Your task to perform on an android device: turn pop-ups off in chrome Image 0: 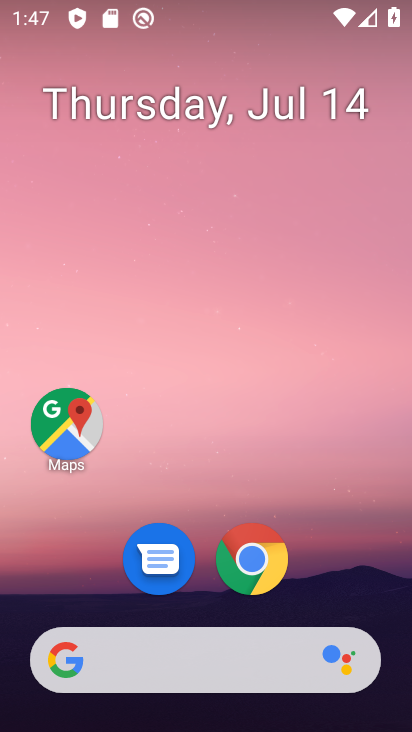
Step 0: drag from (292, 613) to (340, 238)
Your task to perform on an android device: turn pop-ups off in chrome Image 1: 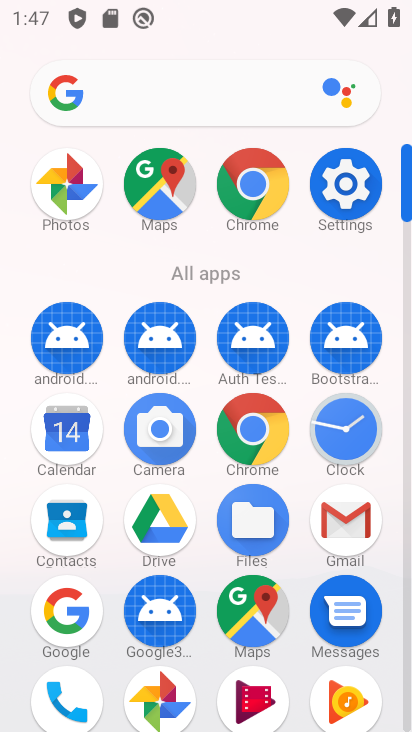
Step 1: click (263, 424)
Your task to perform on an android device: turn pop-ups off in chrome Image 2: 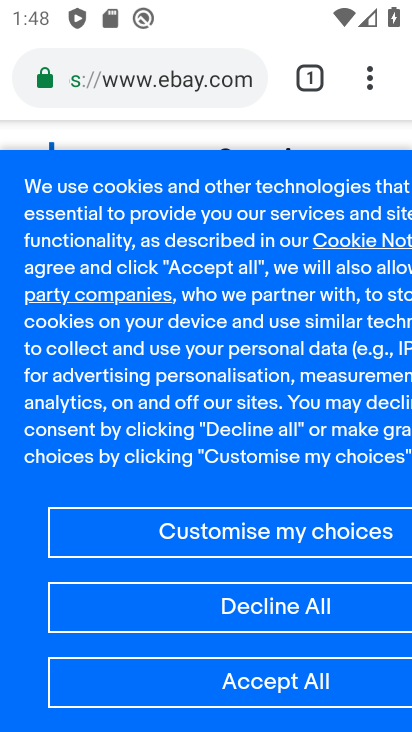
Step 2: click (374, 84)
Your task to perform on an android device: turn pop-ups off in chrome Image 3: 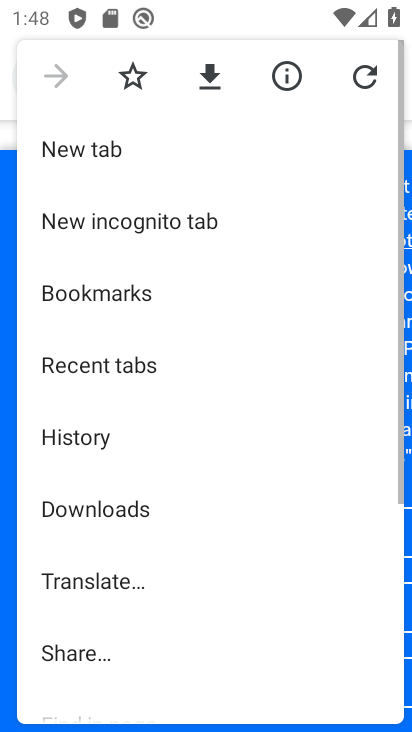
Step 3: drag from (189, 563) to (328, 28)
Your task to perform on an android device: turn pop-ups off in chrome Image 4: 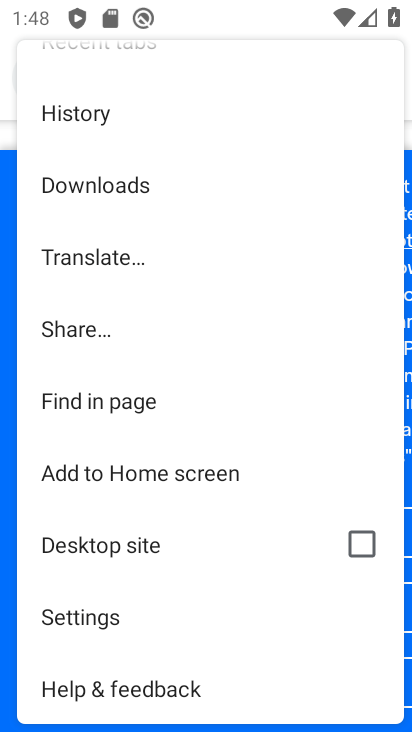
Step 4: click (92, 613)
Your task to perform on an android device: turn pop-ups off in chrome Image 5: 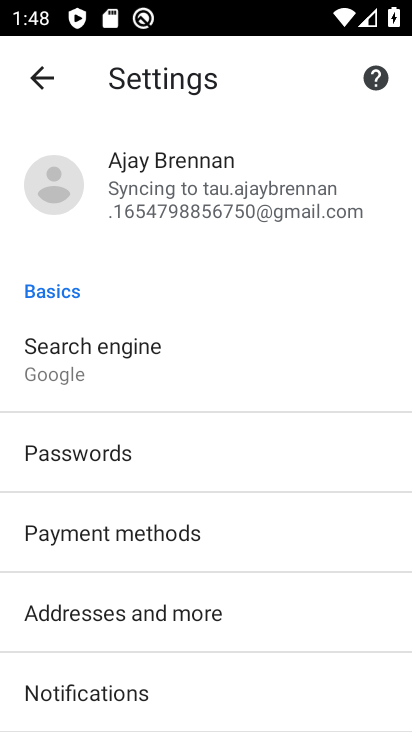
Step 5: drag from (173, 619) to (297, 225)
Your task to perform on an android device: turn pop-ups off in chrome Image 6: 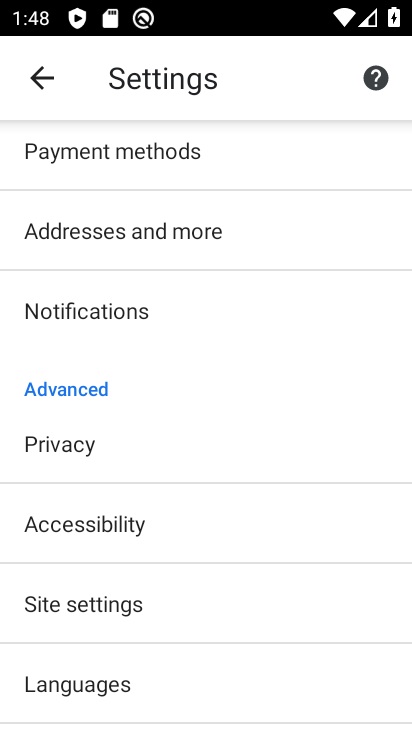
Step 6: click (131, 613)
Your task to perform on an android device: turn pop-ups off in chrome Image 7: 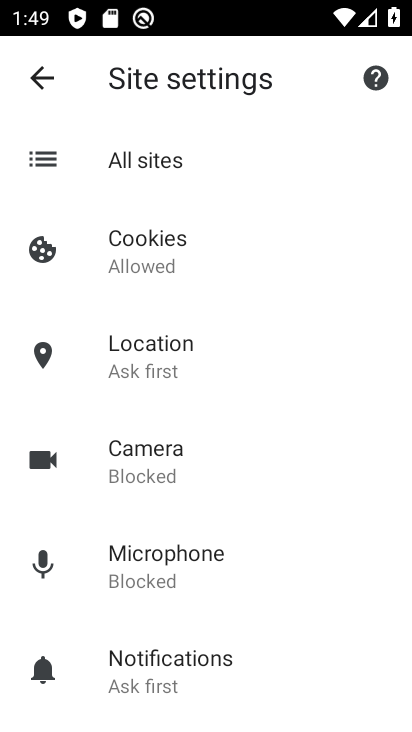
Step 7: drag from (184, 517) to (251, 150)
Your task to perform on an android device: turn pop-ups off in chrome Image 8: 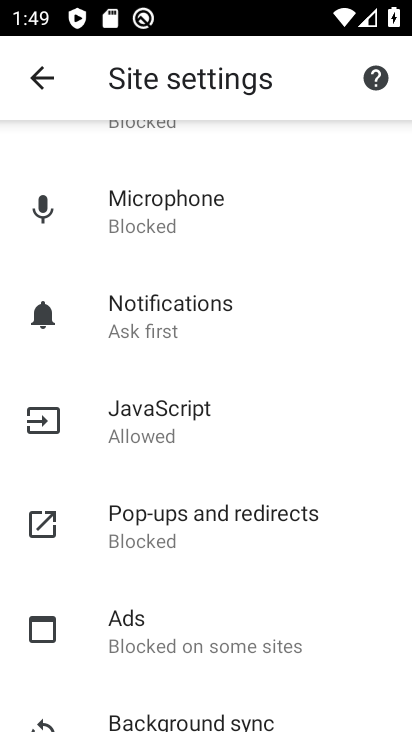
Step 8: click (230, 527)
Your task to perform on an android device: turn pop-ups off in chrome Image 9: 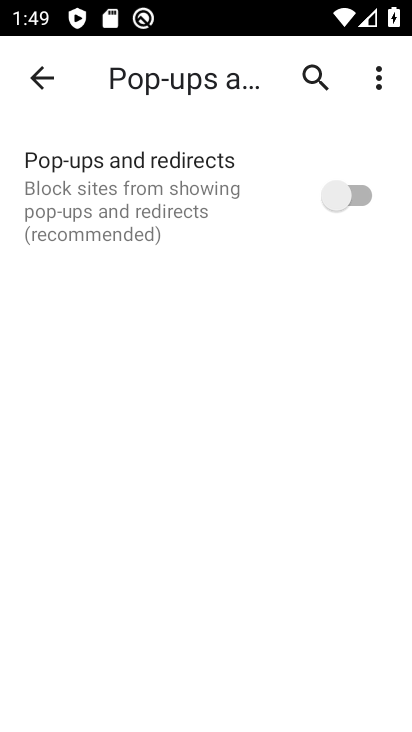
Step 9: click (274, 181)
Your task to perform on an android device: turn pop-ups off in chrome Image 10: 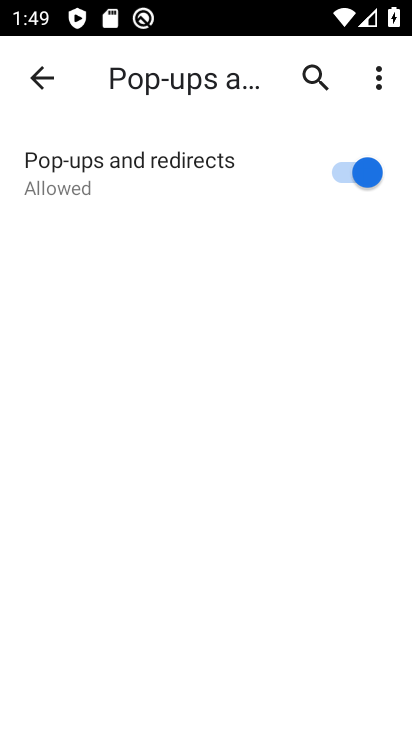
Step 10: task complete